Your task to perform on an android device: Open Youtube and go to "Your channel" Image 0: 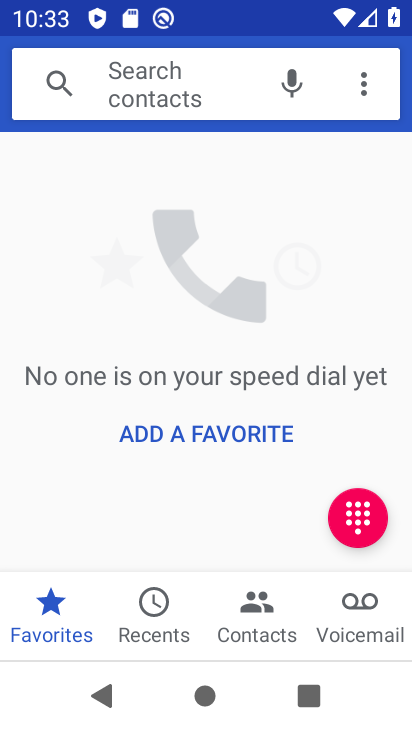
Step 0: press home button
Your task to perform on an android device: Open Youtube and go to "Your channel" Image 1: 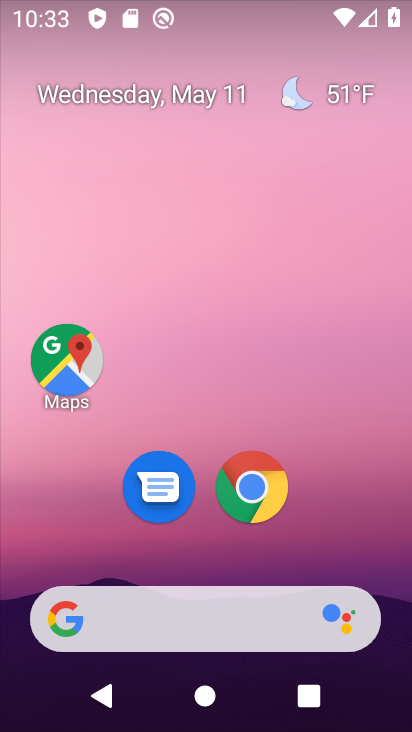
Step 1: drag from (361, 338) to (370, 86)
Your task to perform on an android device: Open Youtube and go to "Your channel" Image 2: 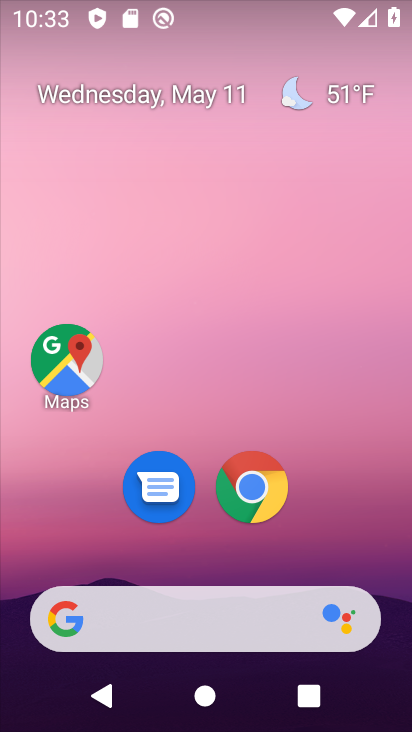
Step 2: drag from (332, 502) to (353, 52)
Your task to perform on an android device: Open Youtube and go to "Your channel" Image 3: 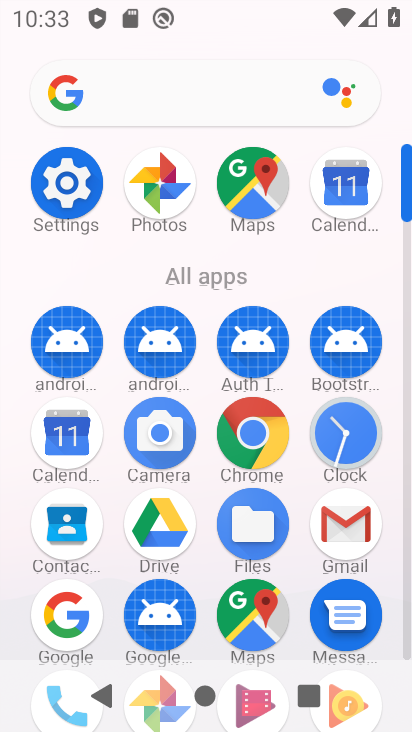
Step 3: drag from (342, 520) to (341, 152)
Your task to perform on an android device: Open Youtube and go to "Your channel" Image 4: 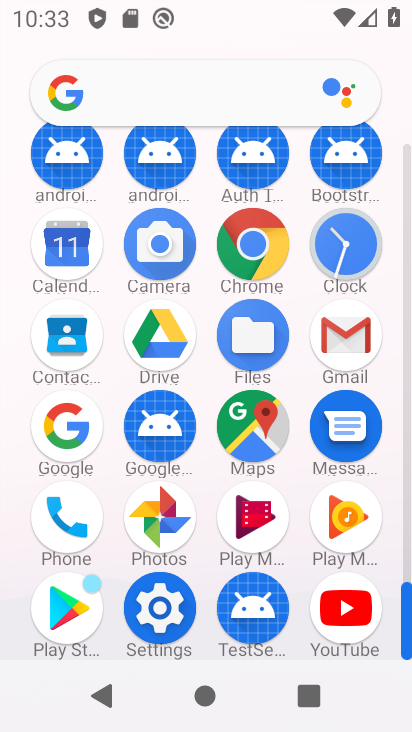
Step 4: click (341, 626)
Your task to perform on an android device: Open Youtube and go to "Your channel" Image 5: 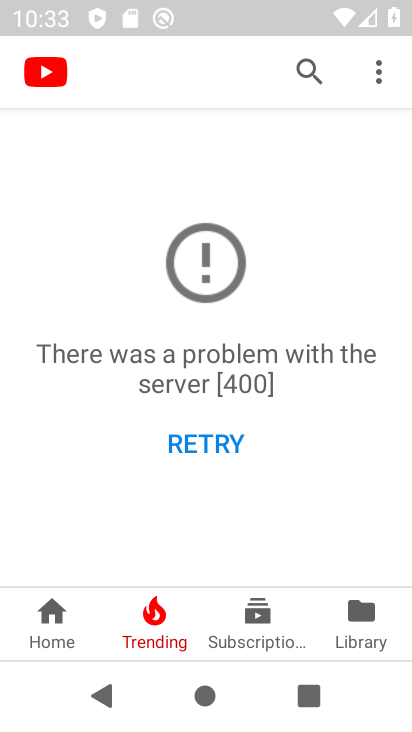
Step 5: click (372, 77)
Your task to perform on an android device: Open Youtube and go to "Your channel" Image 6: 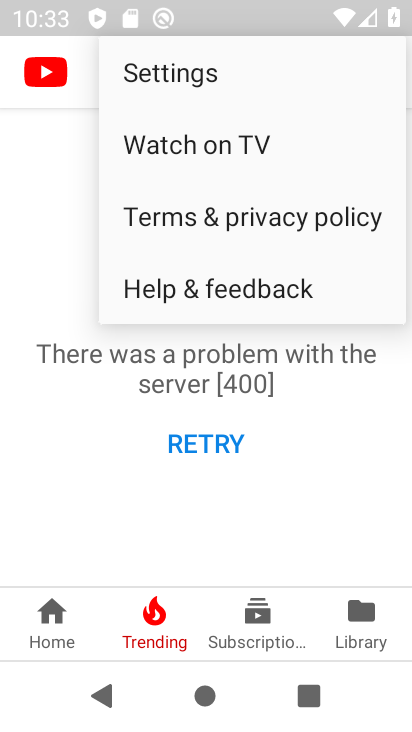
Step 6: click (362, 626)
Your task to perform on an android device: Open Youtube and go to "Your channel" Image 7: 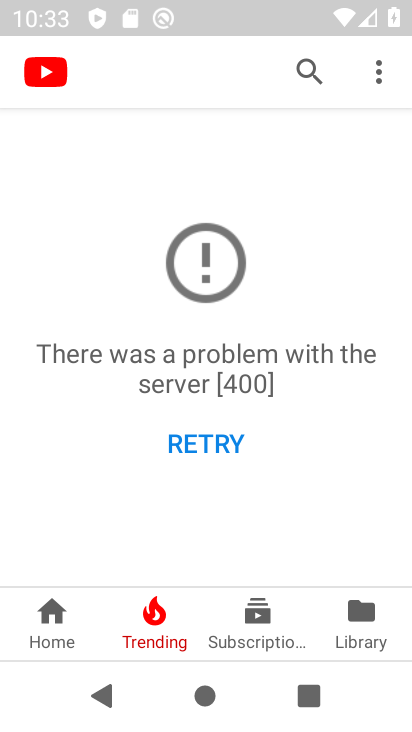
Step 7: click (364, 617)
Your task to perform on an android device: Open Youtube and go to "Your channel" Image 8: 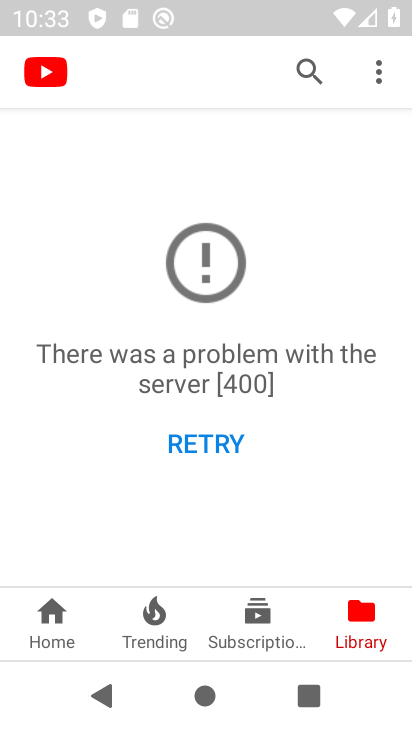
Step 8: task complete